Your task to perform on an android device: turn off notifications settings in the gmail app Image 0: 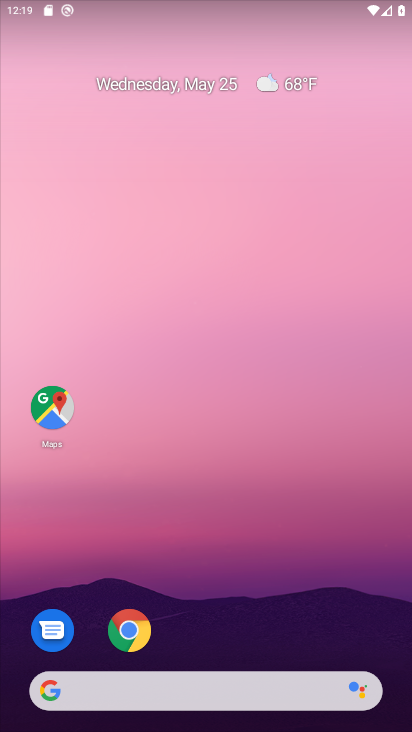
Step 0: drag from (197, 636) to (228, 196)
Your task to perform on an android device: turn off notifications settings in the gmail app Image 1: 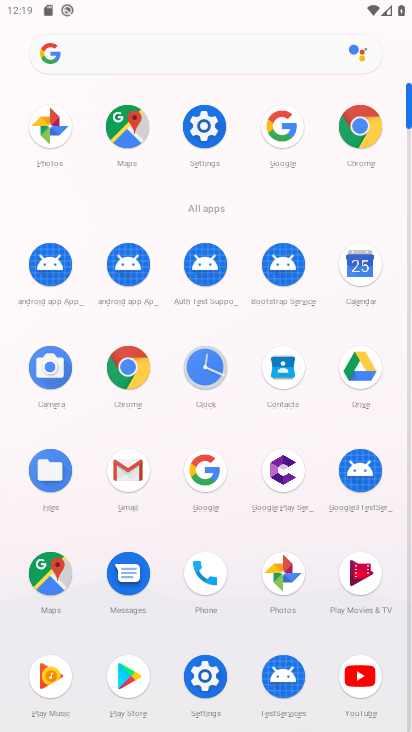
Step 1: click (132, 480)
Your task to perform on an android device: turn off notifications settings in the gmail app Image 2: 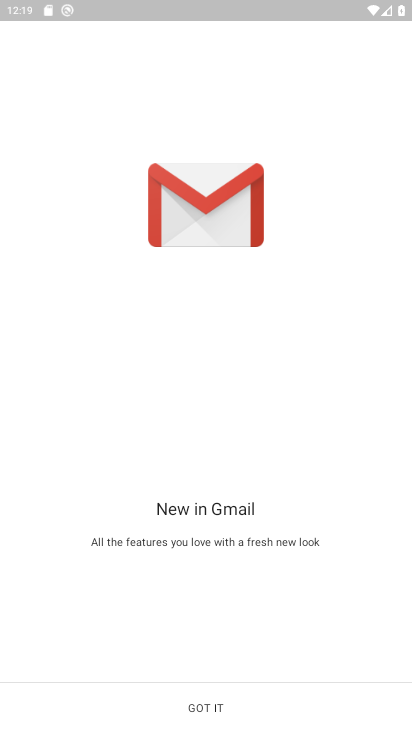
Step 2: click (232, 707)
Your task to perform on an android device: turn off notifications settings in the gmail app Image 3: 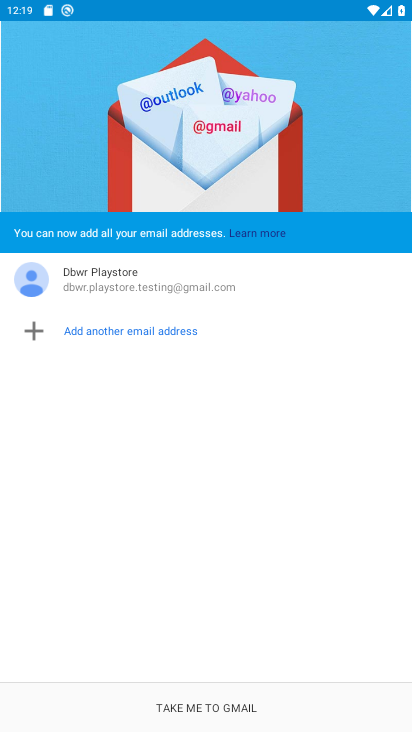
Step 3: click (260, 699)
Your task to perform on an android device: turn off notifications settings in the gmail app Image 4: 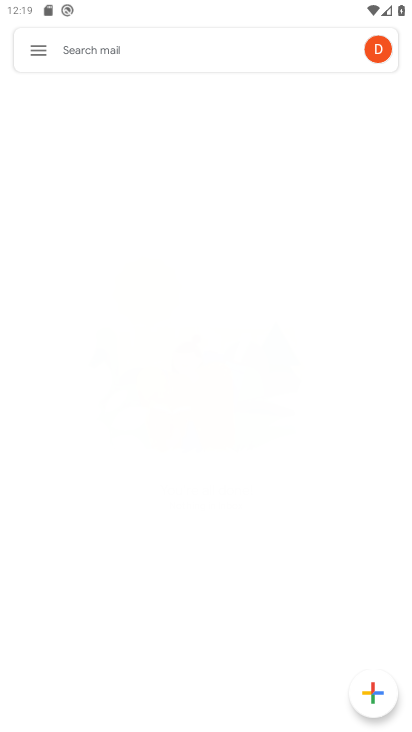
Step 4: click (46, 50)
Your task to perform on an android device: turn off notifications settings in the gmail app Image 5: 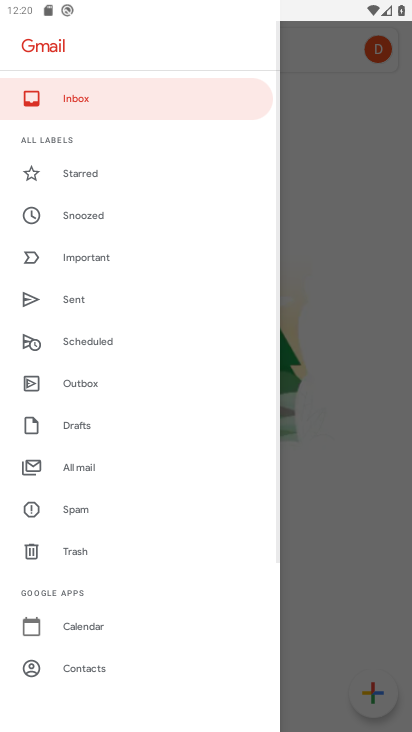
Step 5: drag from (121, 638) to (111, 304)
Your task to perform on an android device: turn off notifications settings in the gmail app Image 6: 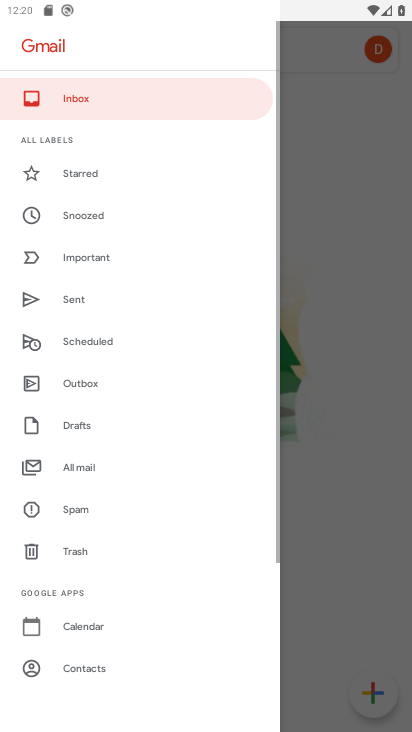
Step 6: drag from (94, 630) to (119, 297)
Your task to perform on an android device: turn off notifications settings in the gmail app Image 7: 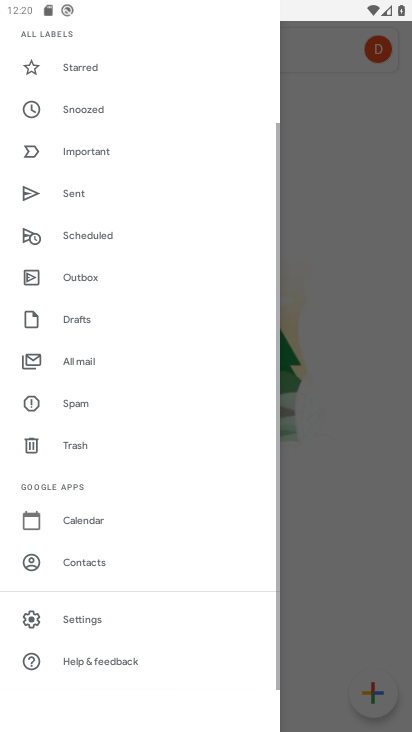
Step 7: click (85, 604)
Your task to perform on an android device: turn off notifications settings in the gmail app Image 8: 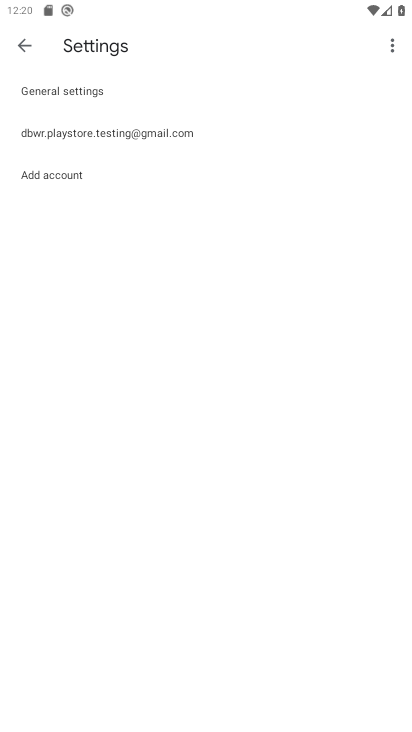
Step 8: click (202, 129)
Your task to perform on an android device: turn off notifications settings in the gmail app Image 9: 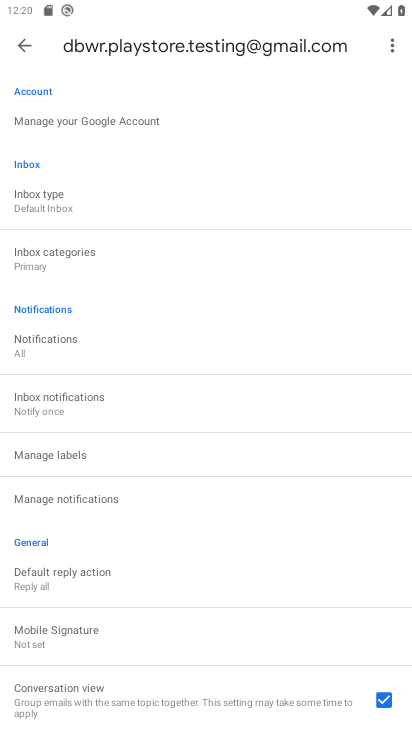
Step 9: click (122, 483)
Your task to perform on an android device: turn off notifications settings in the gmail app Image 10: 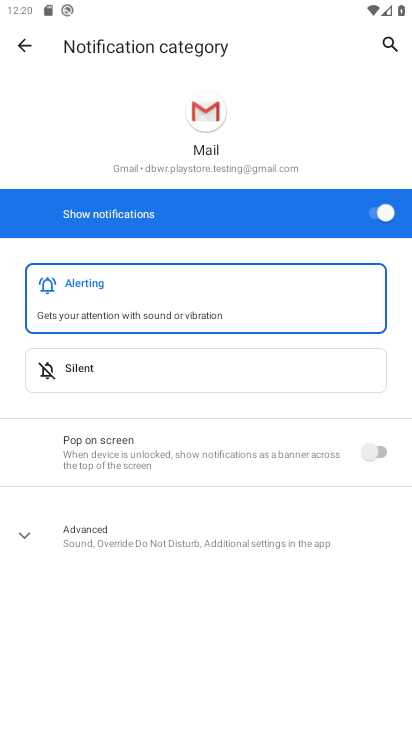
Step 10: click (369, 205)
Your task to perform on an android device: turn off notifications settings in the gmail app Image 11: 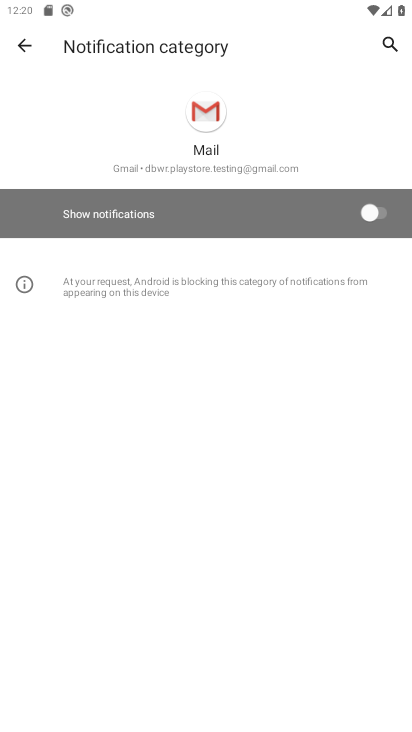
Step 11: task complete